Your task to perform on an android device: Search for pizza restaurants on Maps Image 0: 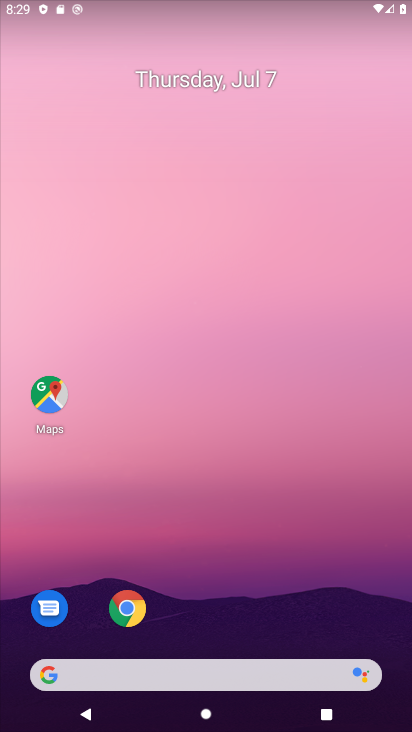
Step 0: click (43, 418)
Your task to perform on an android device: Search for pizza restaurants on Maps Image 1: 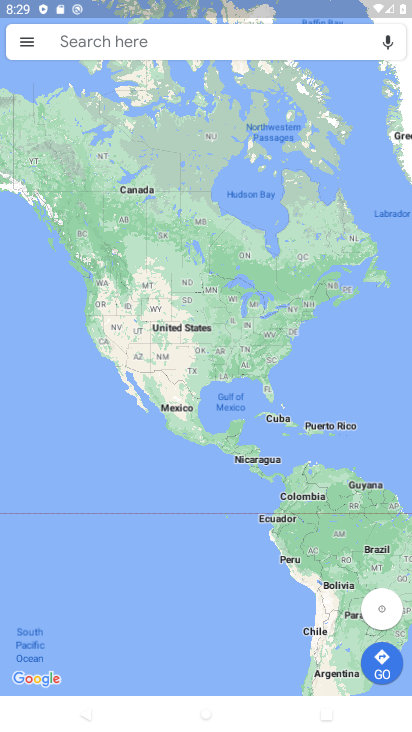
Step 1: click (41, 418)
Your task to perform on an android device: Search for pizza restaurants on Maps Image 2: 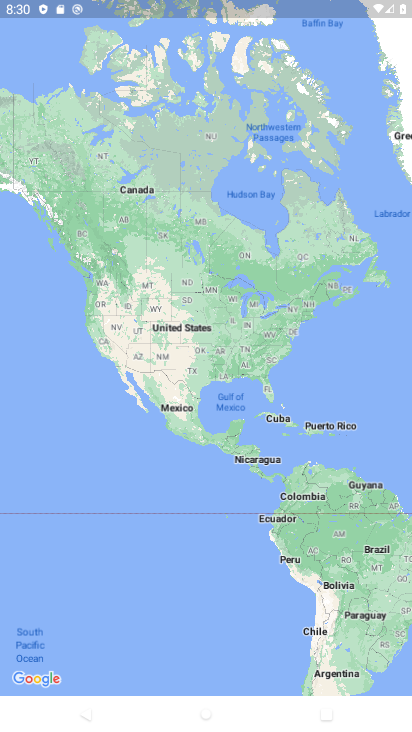
Step 2: drag from (174, 387) to (176, 584)
Your task to perform on an android device: Search for pizza restaurants on Maps Image 3: 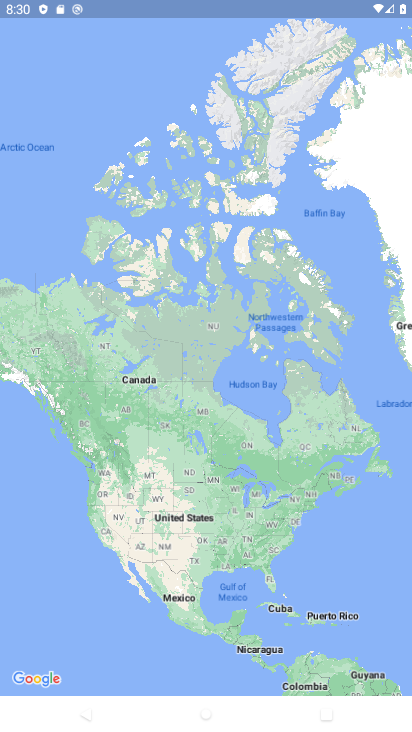
Step 3: click (84, 483)
Your task to perform on an android device: Search for pizza restaurants on Maps Image 4: 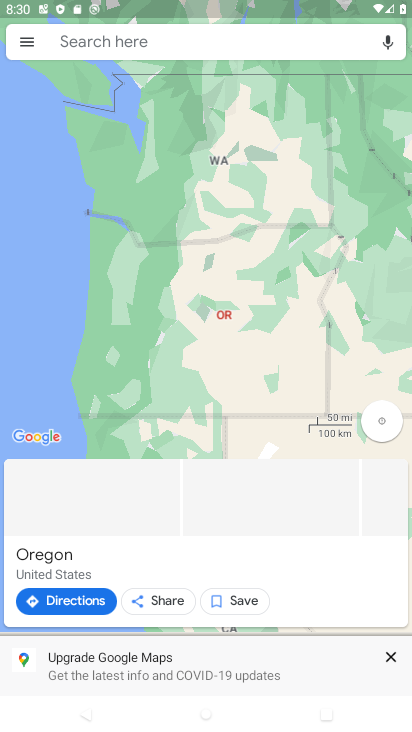
Step 4: click (392, 436)
Your task to perform on an android device: Search for pizza restaurants on Maps Image 5: 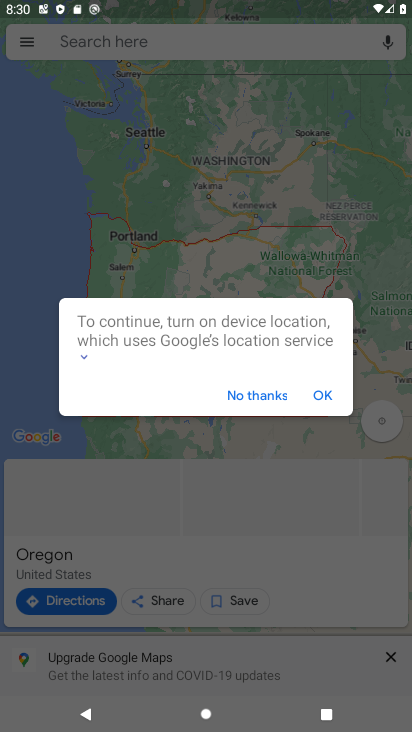
Step 5: click (326, 398)
Your task to perform on an android device: Search for pizza restaurants on Maps Image 6: 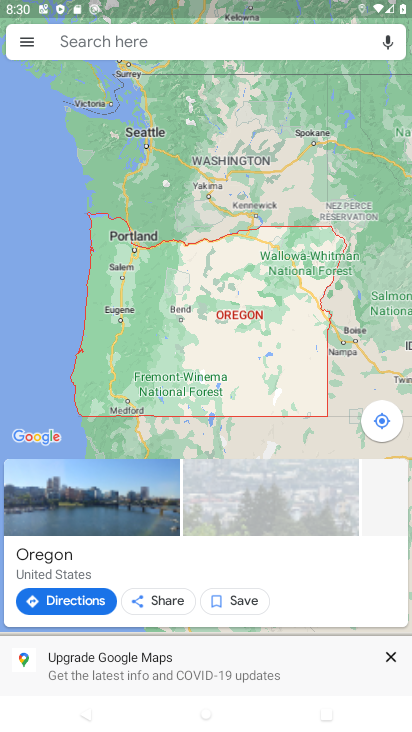
Step 6: click (383, 424)
Your task to perform on an android device: Search for pizza restaurants on Maps Image 7: 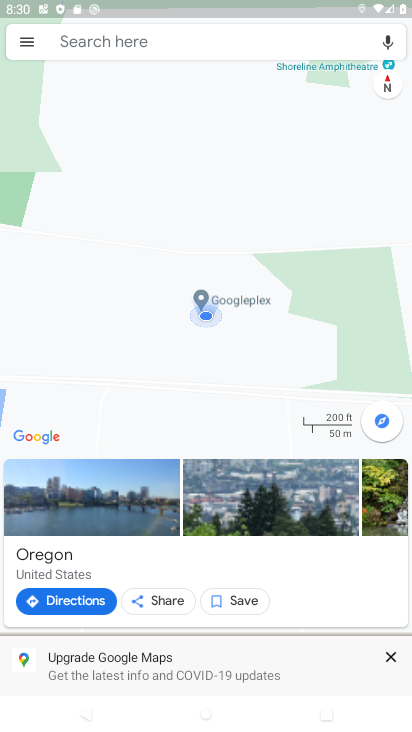
Step 7: click (139, 41)
Your task to perform on an android device: Search for pizza restaurants on Maps Image 8: 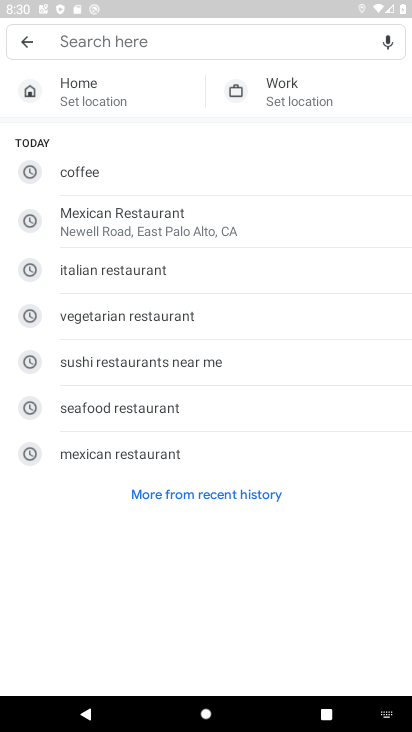
Step 8: type "pizza restaurants"
Your task to perform on an android device: Search for pizza restaurants on Maps Image 9: 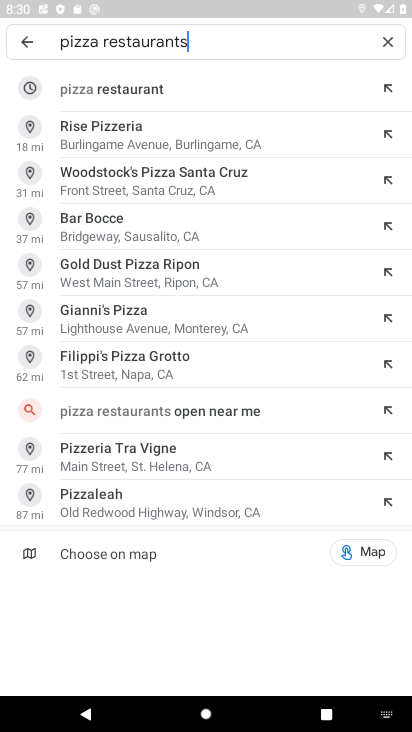
Step 9: click (152, 88)
Your task to perform on an android device: Search for pizza restaurants on Maps Image 10: 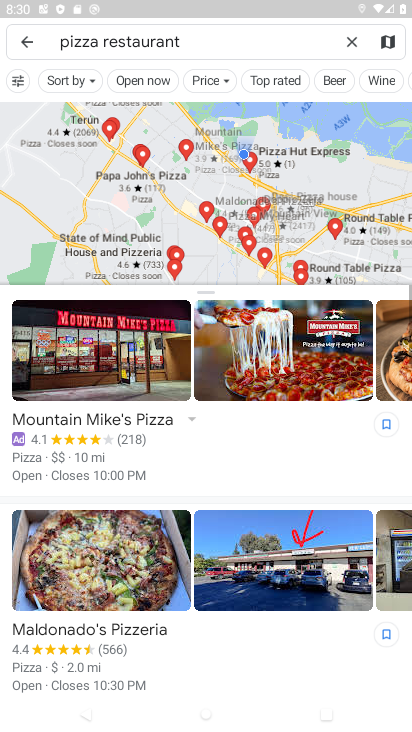
Step 10: task complete